Your task to perform on an android device: Open internet settings Image 0: 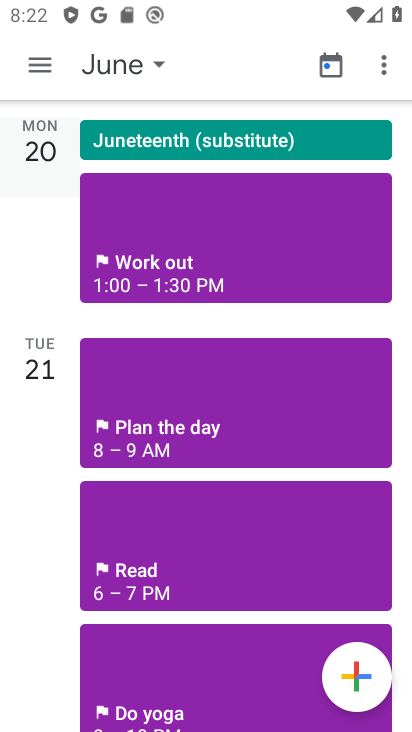
Step 0: drag from (202, 615) to (233, 226)
Your task to perform on an android device: Open internet settings Image 1: 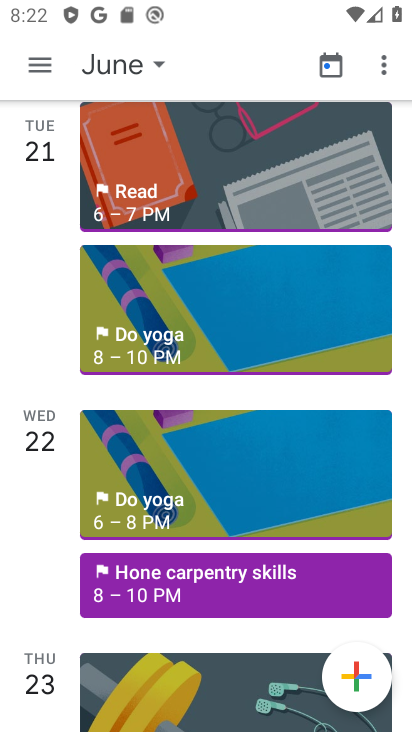
Step 1: press back button
Your task to perform on an android device: Open internet settings Image 2: 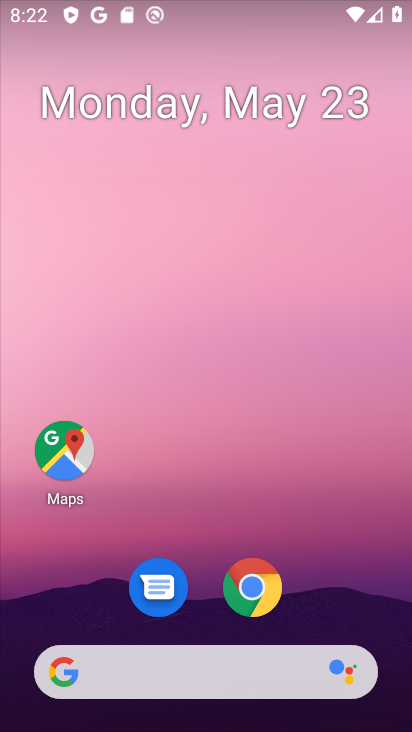
Step 2: drag from (160, 607) to (233, 83)
Your task to perform on an android device: Open internet settings Image 3: 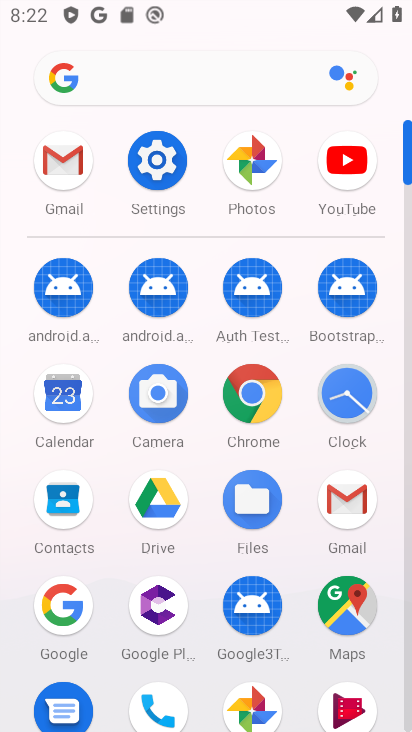
Step 3: click (147, 159)
Your task to perform on an android device: Open internet settings Image 4: 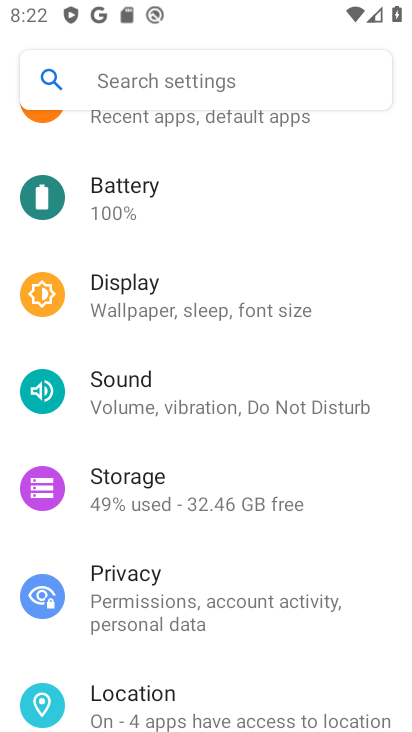
Step 4: drag from (218, 188) to (140, 699)
Your task to perform on an android device: Open internet settings Image 5: 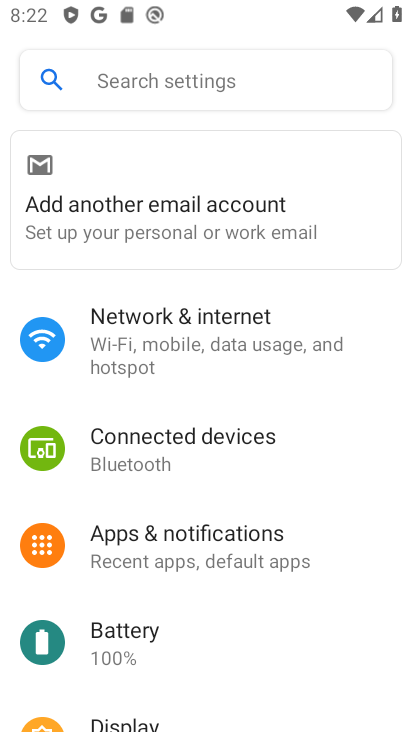
Step 5: click (193, 338)
Your task to perform on an android device: Open internet settings Image 6: 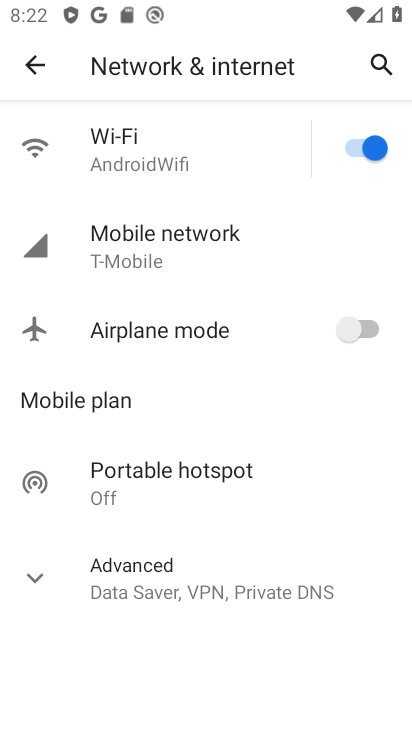
Step 6: task complete